Your task to perform on an android device: Open the Play Movies app and select the watchlist tab. Image 0: 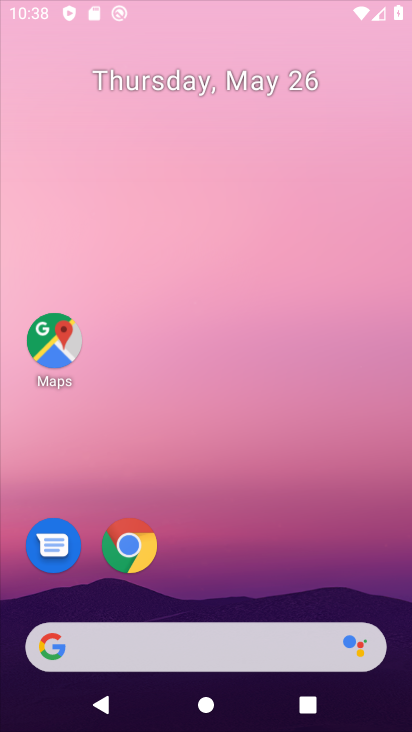
Step 0: click (124, 548)
Your task to perform on an android device: Open the Play Movies app and select the watchlist tab. Image 1: 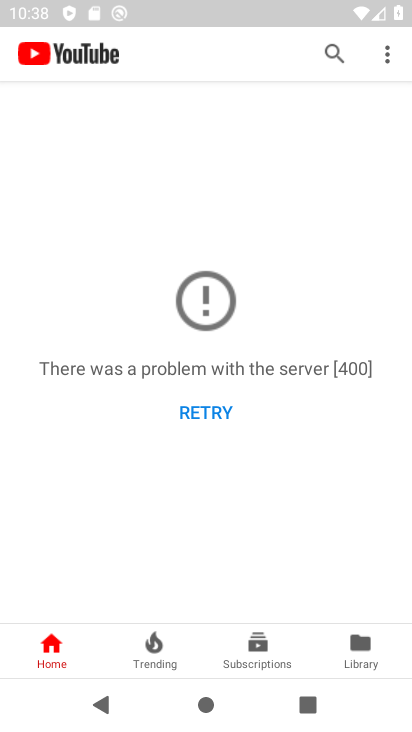
Step 1: press home button
Your task to perform on an android device: Open the Play Movies app and select the watchlist tab. Image 2: 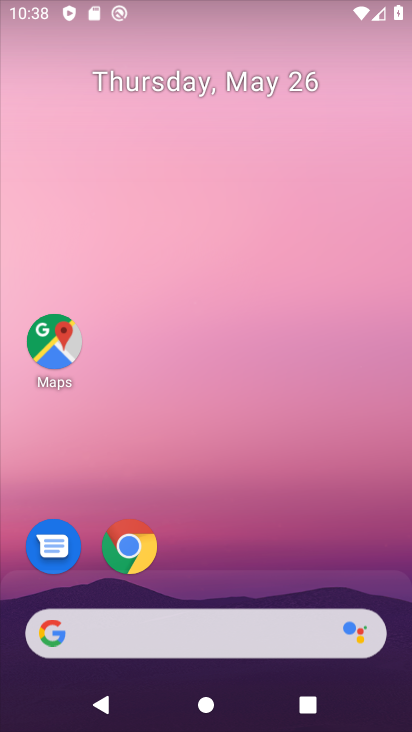
Step 2: drag from (277, 577) to (320, 84)
Your task to perform on an android device: Open the Play Movies app and select the watchlist tab. Image 3: 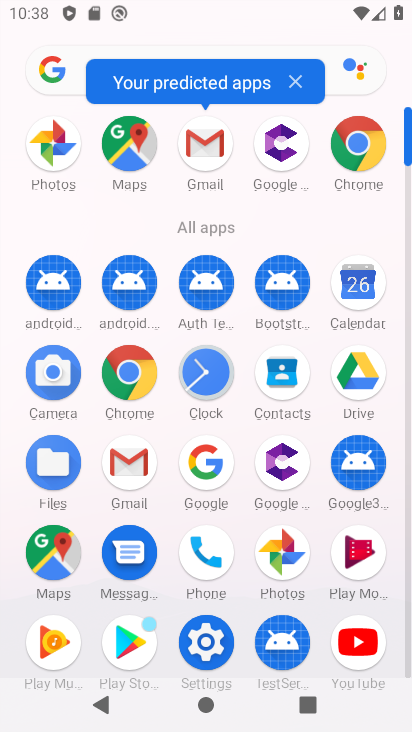
Step 3: click (357, 551)
Your task to perform on an android device: Open the Play Movies app and select the watchlist tab. Image 4: 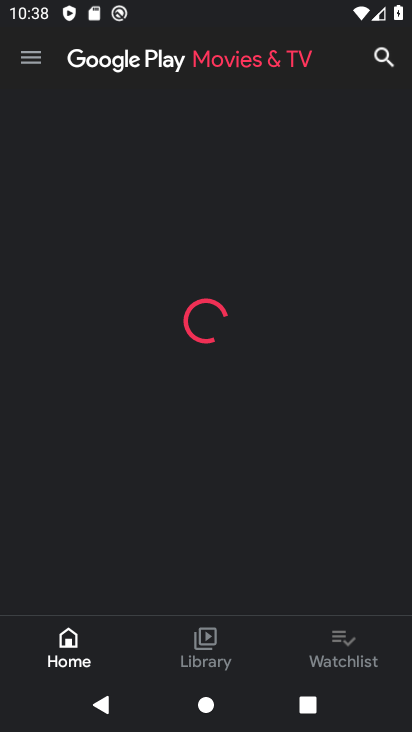
Step 4: click (351, 642)
Your task to perform on an android device: Open the Play Movies app and select the watchlist tab. Image 5: 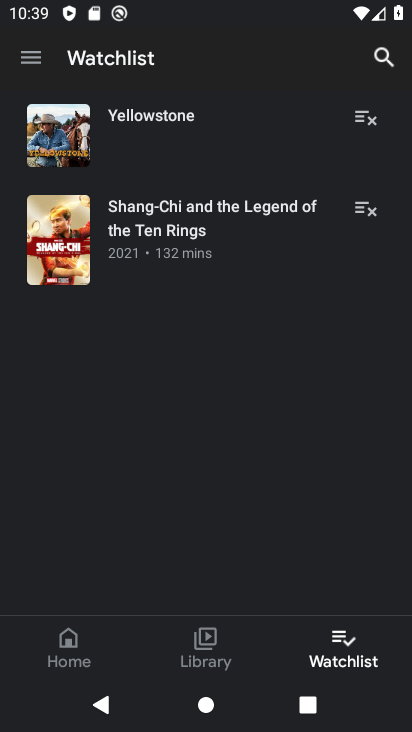
Step 5: task complete